Your task to perform on an android device: Open Google Image 0: 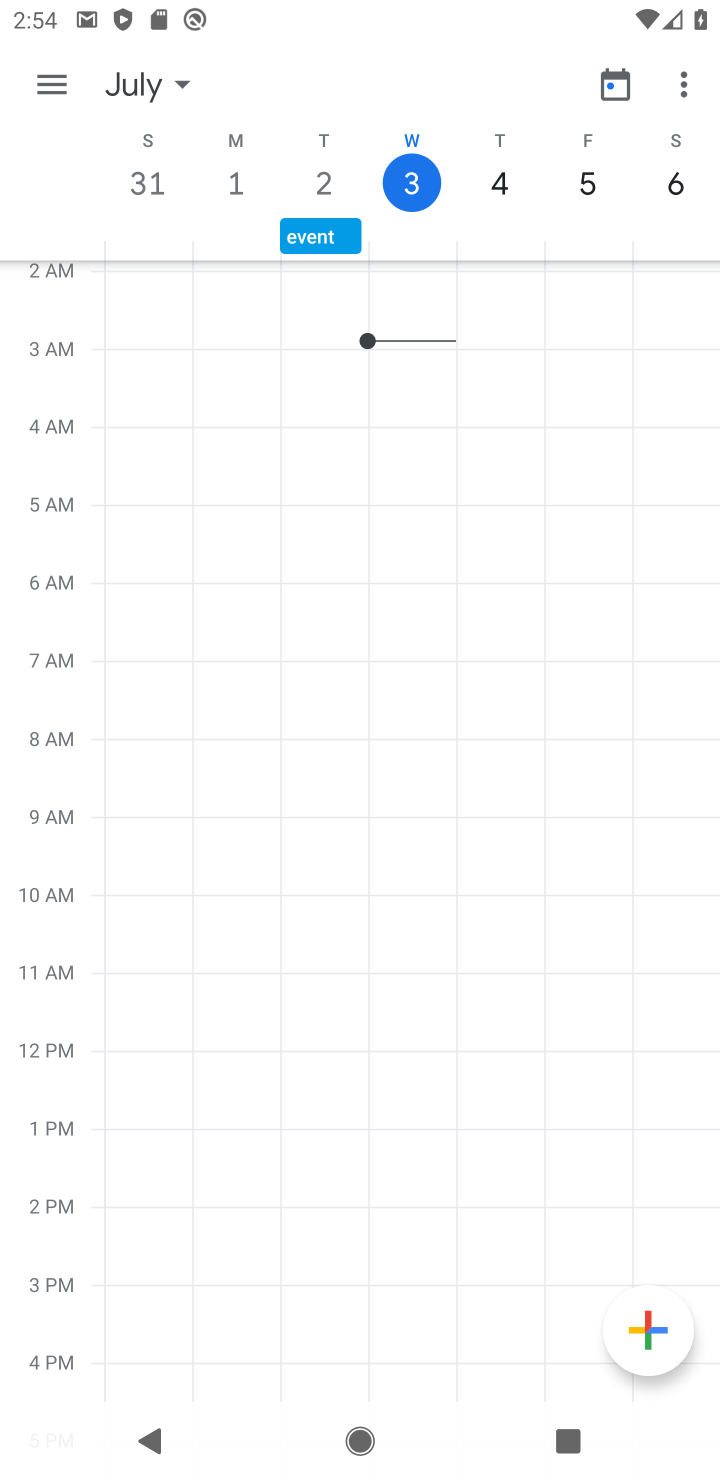
Step 0: press home button
Your task to perform on an android device: Open Google Image 1: 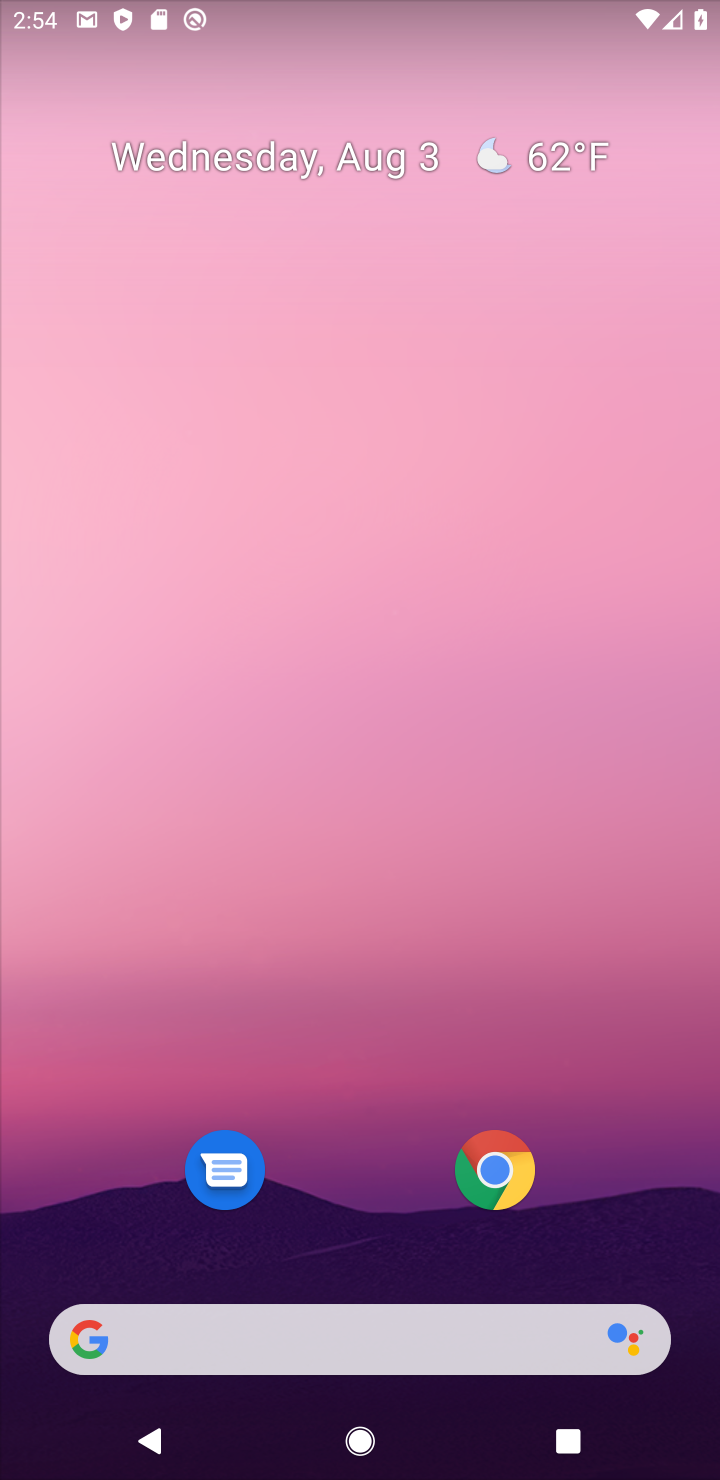
Step 1: click (389, 1343)
Your task to perform on an android device: Open Google Image 2: 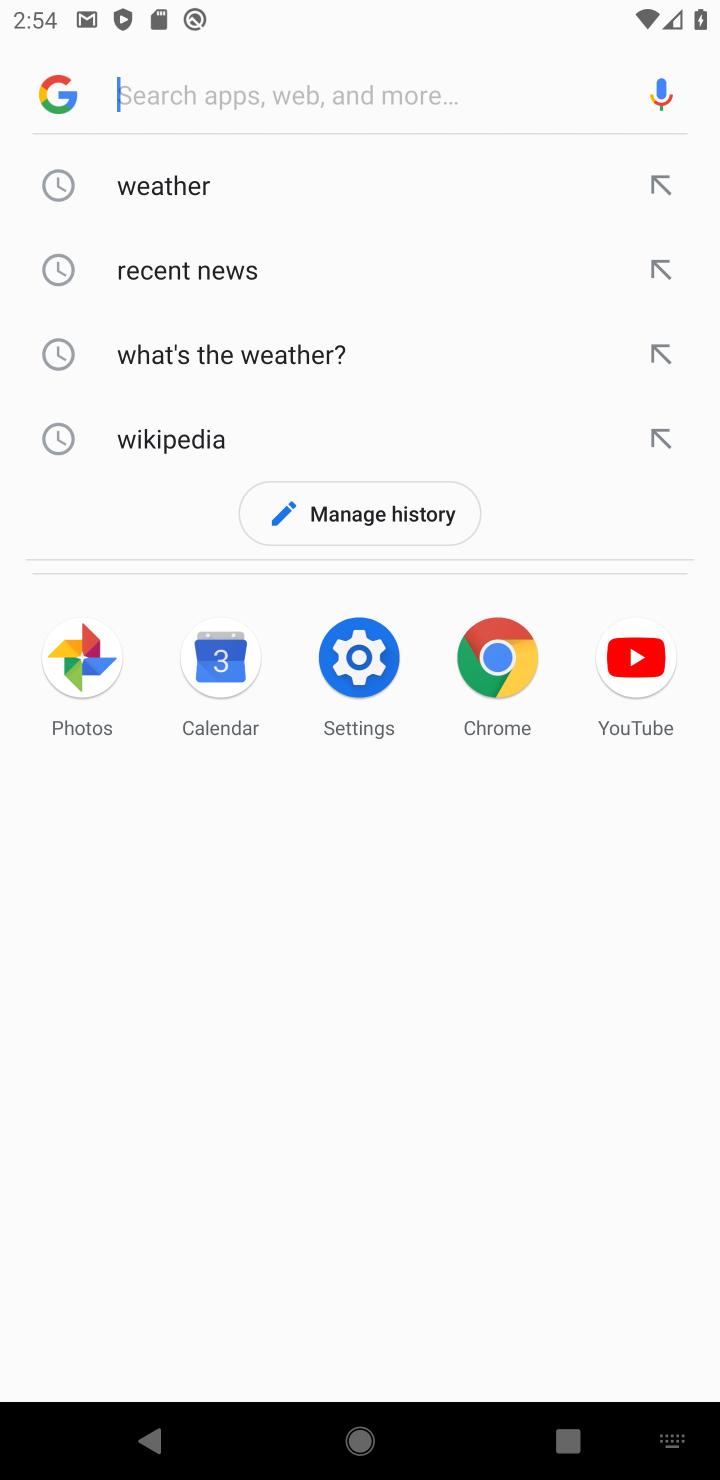
Step 2: task complete